Your task to perform on an android device: show emergency info Image 0: 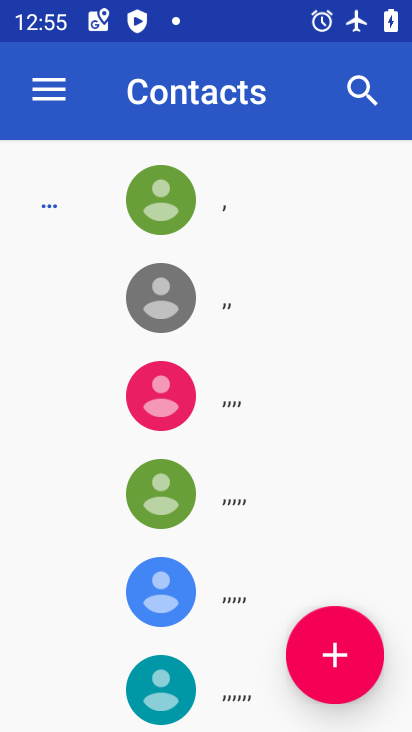
Step 0: press home button
Your task to perform on an android device: show emergency info Image 1: 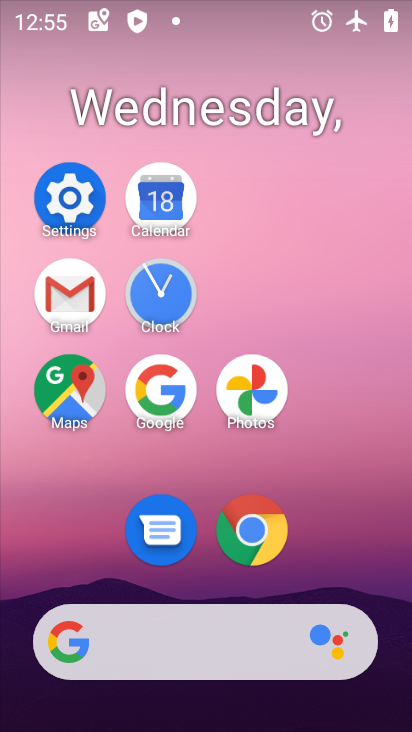
Step 1: click (87, 199)
Your task to perform on an android device: show emergency info Image 2: 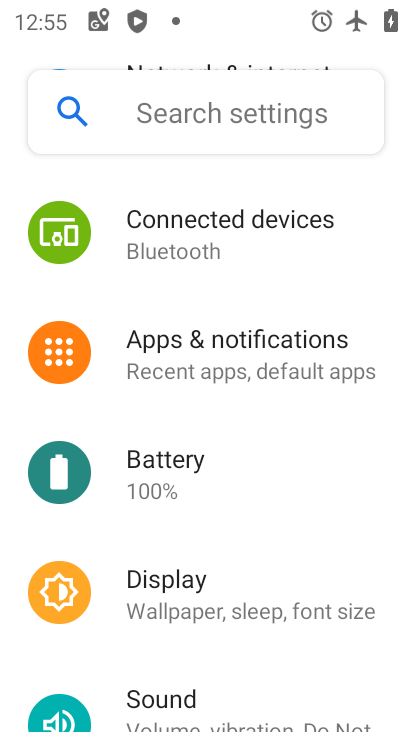
Step 2: drag from (280, 522) to (229, 144)
Your task to perform on an android device: show emergency info Image 3: 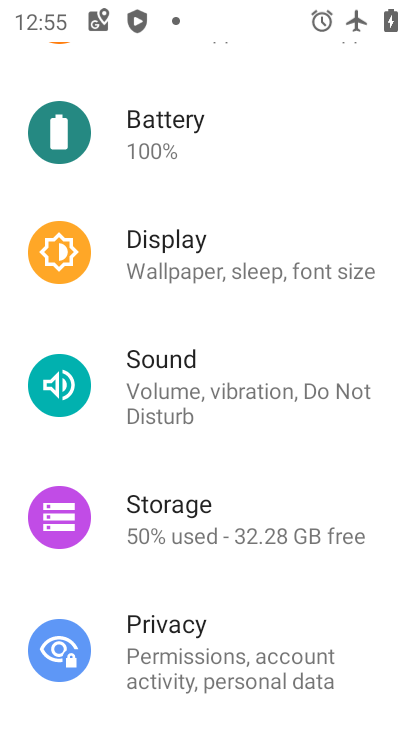
Step 3: drag from (287, 565) to (233, 172)
Your task to perform on an android device: show emergency info Image 4: 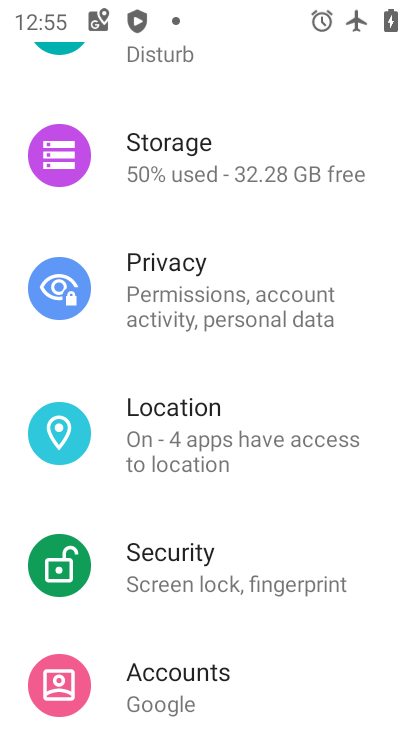
Step 4: drag from (270, 617) to (243, 137)
Your task to perform on an android device: show emergency info Image 5: 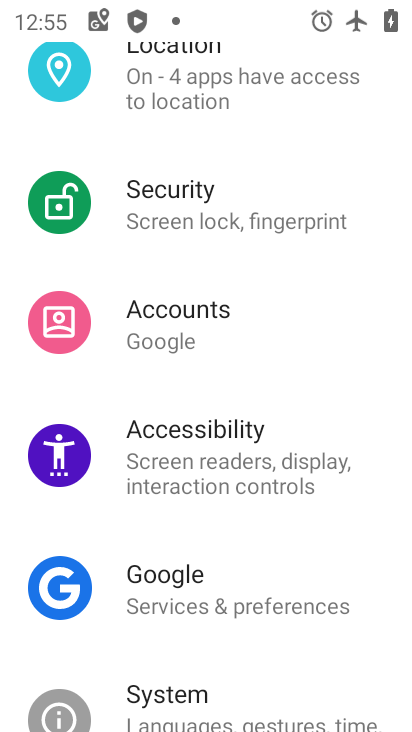
Step 5: drag from (272, 651) to (294, 246)
Your task to perform on an android device: show emergency info Image 6: 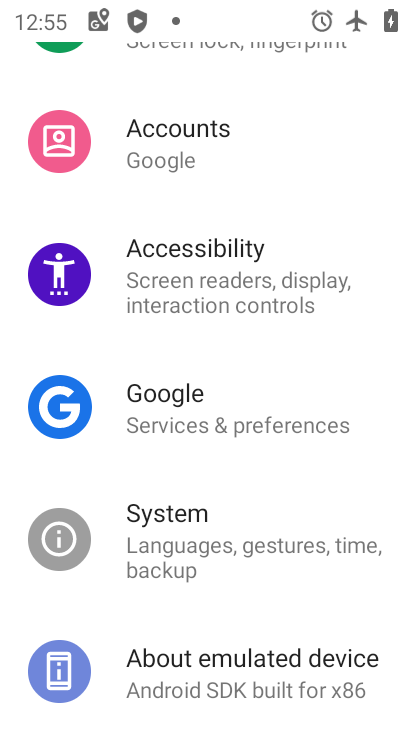
Step 6: click (282, 647)
Your task to perform on an android device: show emergency info Image 7: 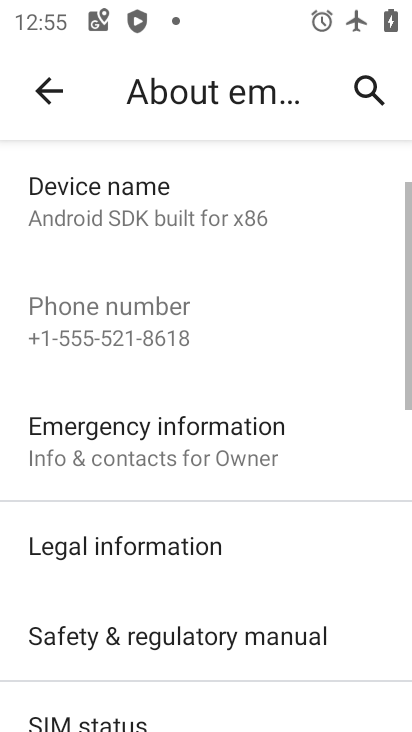
Step 7: click (217, 420)
Your task to perform on an android device: show emergency info Image 8: 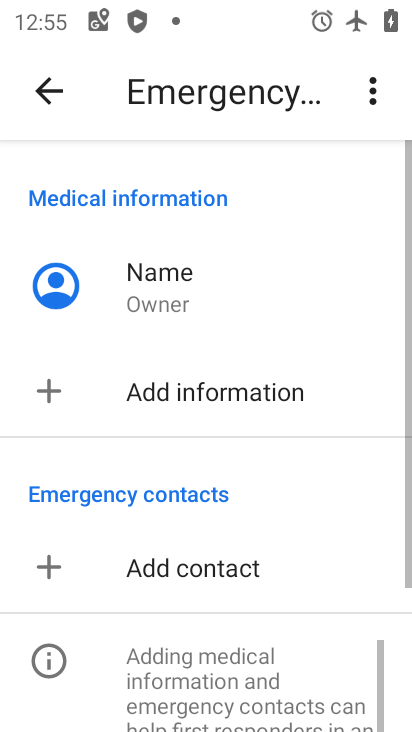
Step 8: task complete